Your task to perform on an android device: turn notification dots off Image 0: 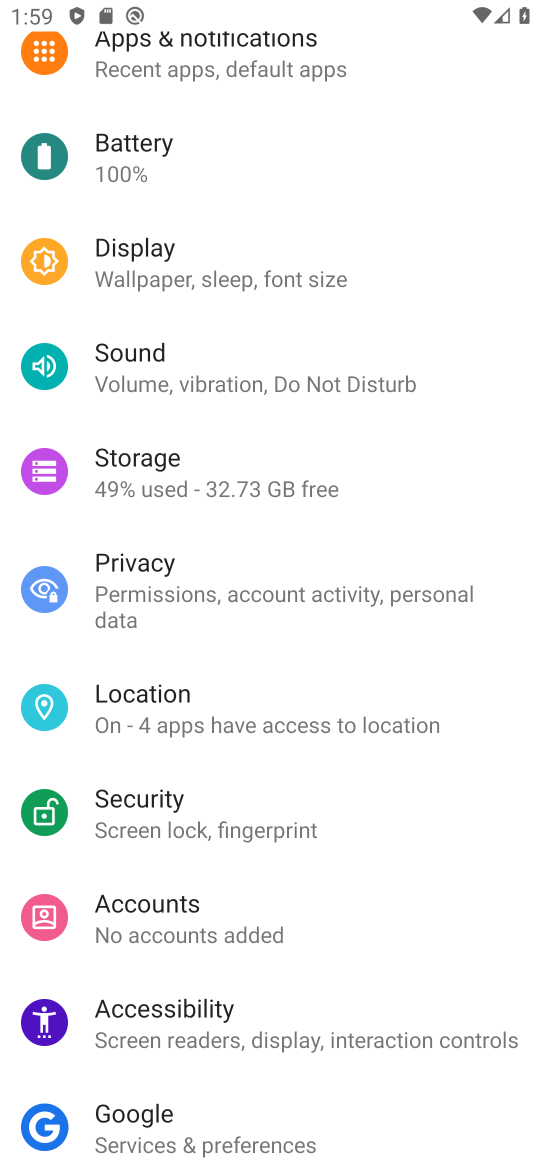
Step 0: click (243, 63)
Your task to perform on an android device: turn notification dots off Image 1: 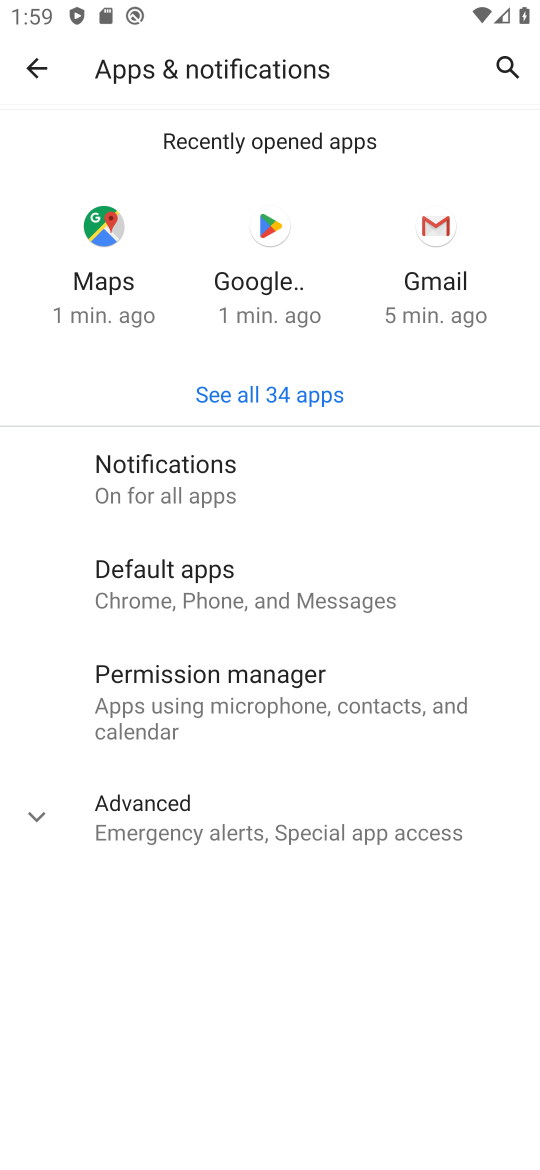
Step 1: click (222, 491)
Your task to perform on an android device: turn notification dots off Image 2: 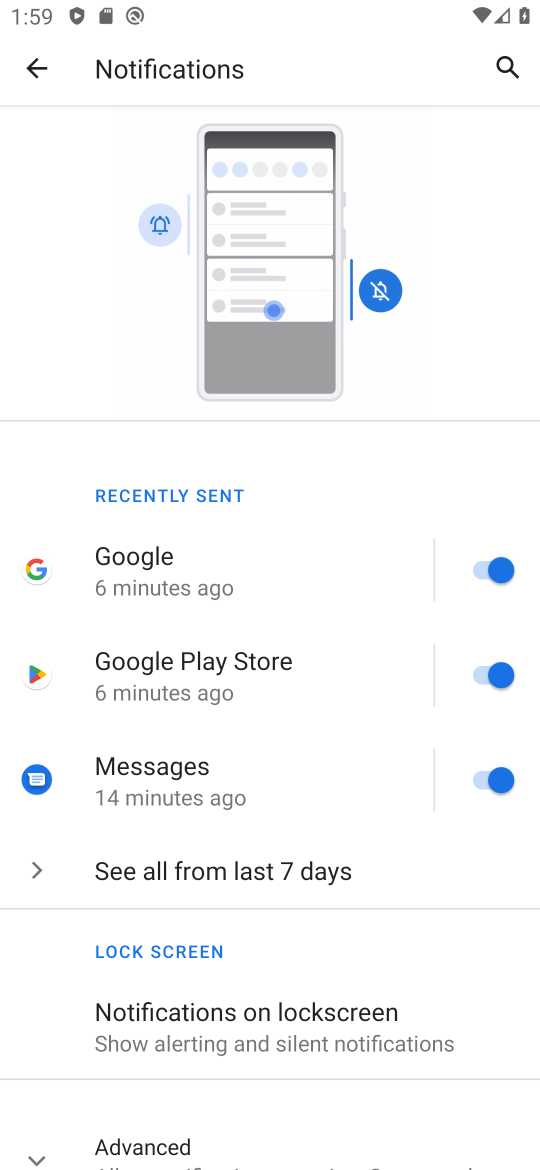
Step 2: drag from (130, 1029) to (143, 174)
Your task to perform on an android device: turn notification dots off Image 3: 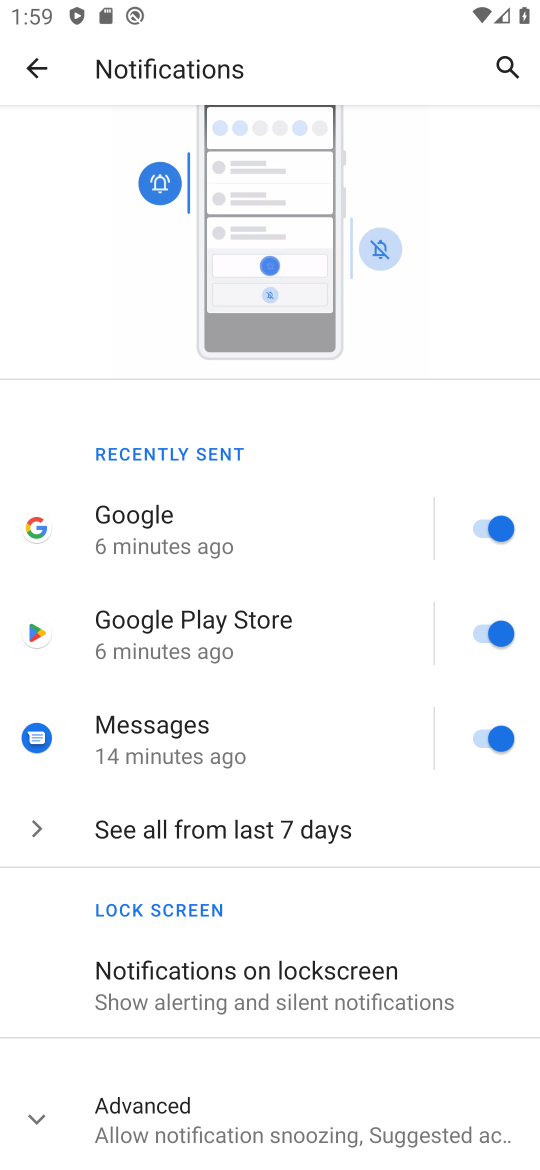
Step 3: click (143, 1116)
Your task to perform on an android device: turn notification dots off Image 4: 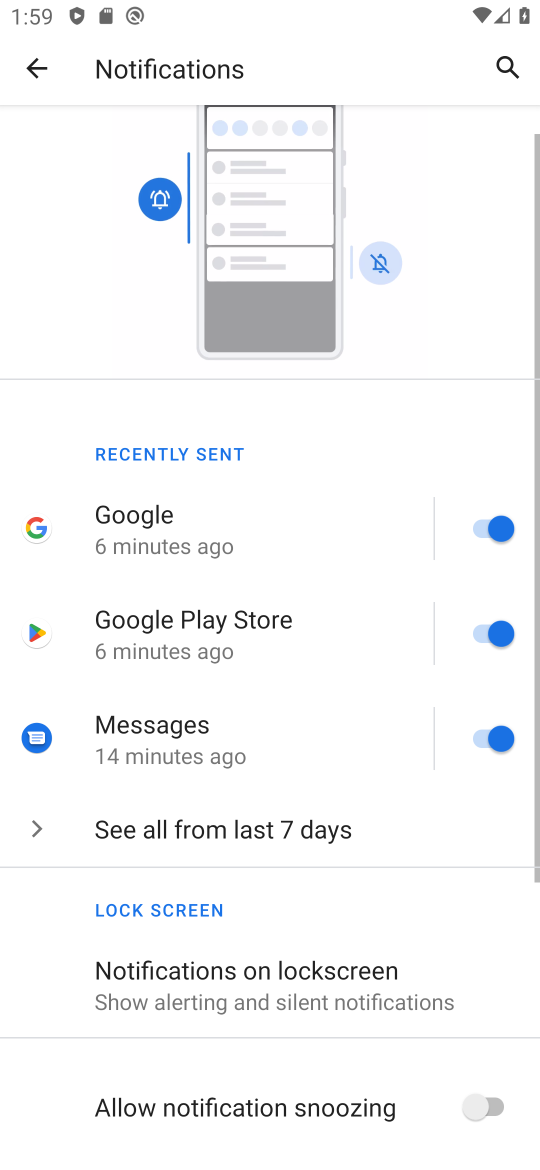
Step 4: drag from (168, 1078) to (206, 579)
Your task to perform on an android device: turn notification dots off Image 5: 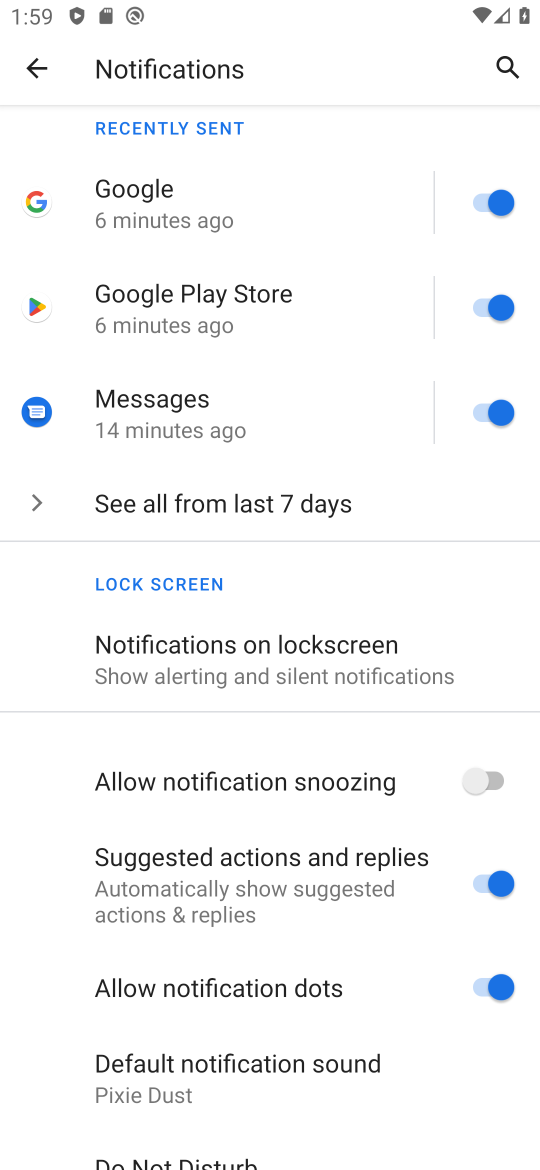
Step 5: click (399, 1007)
Your task to perform on an android device: turn notification dots off Image 6: 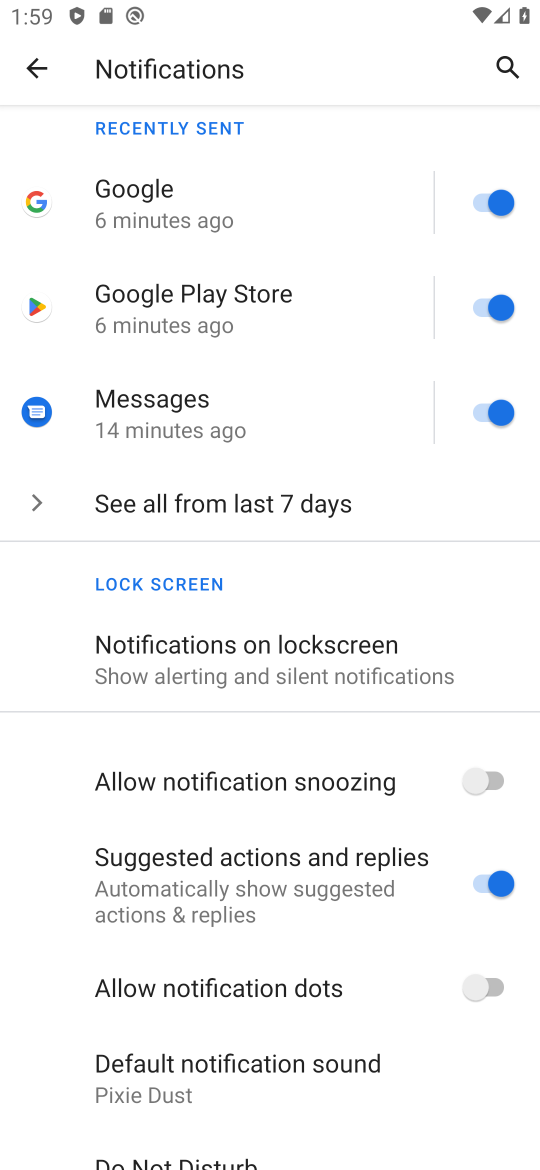
Step 6: task complete